Your task to perform on an android device: Turn on the flashlight Image 0: 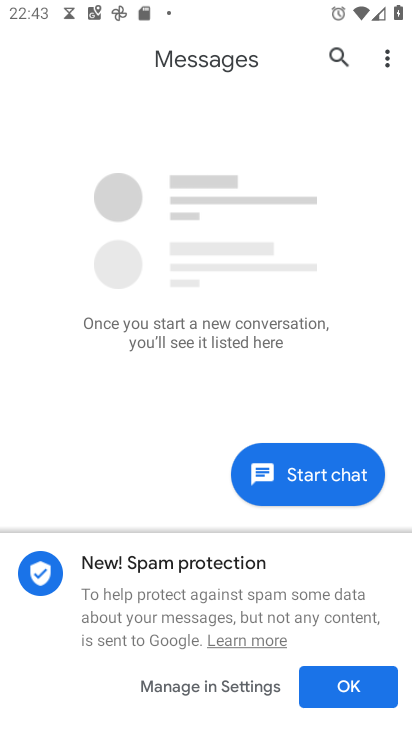
Step 0: drag from (201, 707) to (197, 2)
Your task to perform on an android device: Turn on the flashlight Image 1: 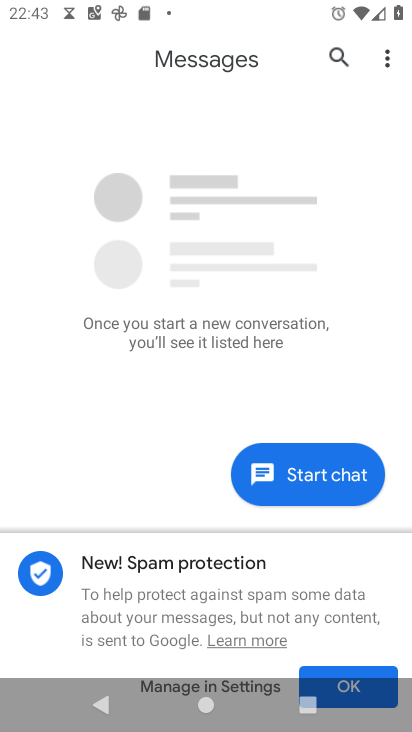
Step 1: press home button
Your task to perform on an android device: Turn on the flashlight Image 2: 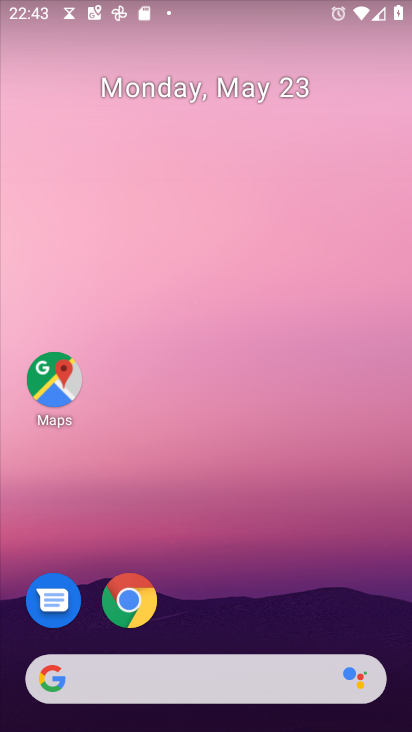
Step 2: drag from (202, 727) to (180, 115)
Your task to perform on an android device: Turn on the flashlight Image 3: 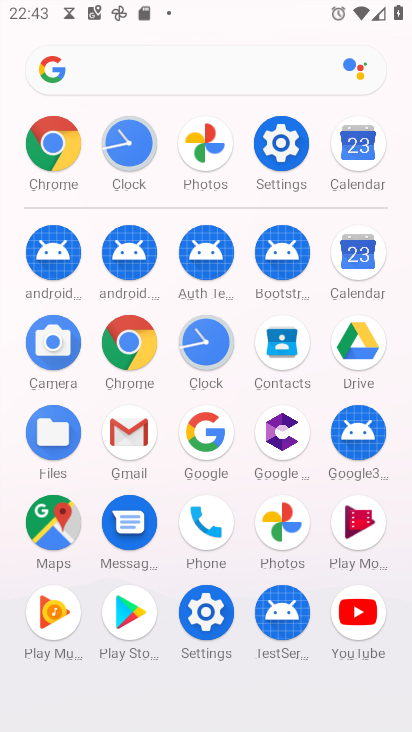
Step 3: click (283, 143)
Your task to perform on an android device: Turn on the flashlight Image 4: 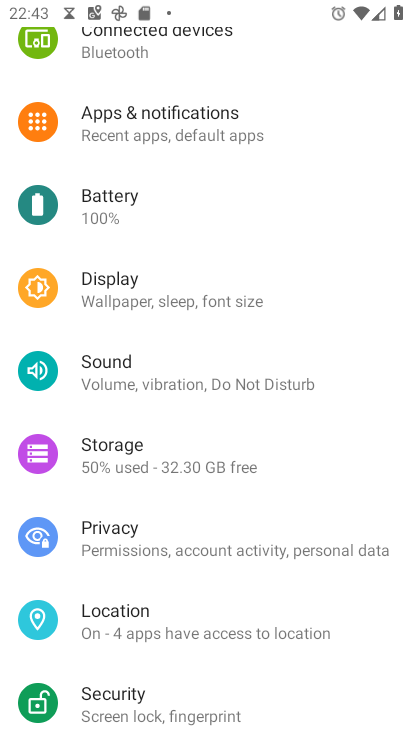
Step 4: task complete